Your task to perform on an android device: Go to Wikipedia Image 0: 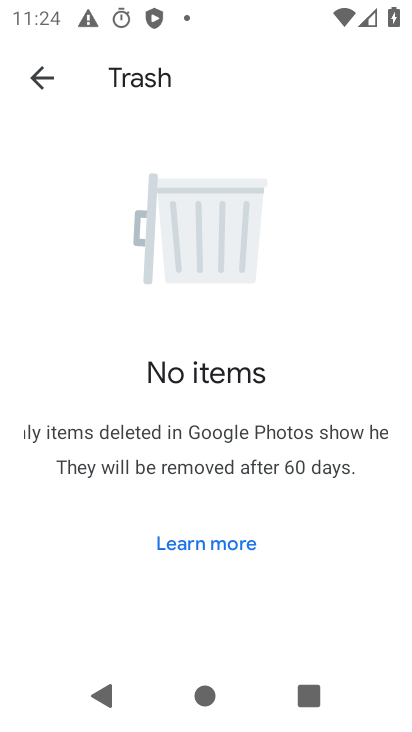
Step 0: press home button
Your task to perform on an android device: Go to Wikipedia Image 1: 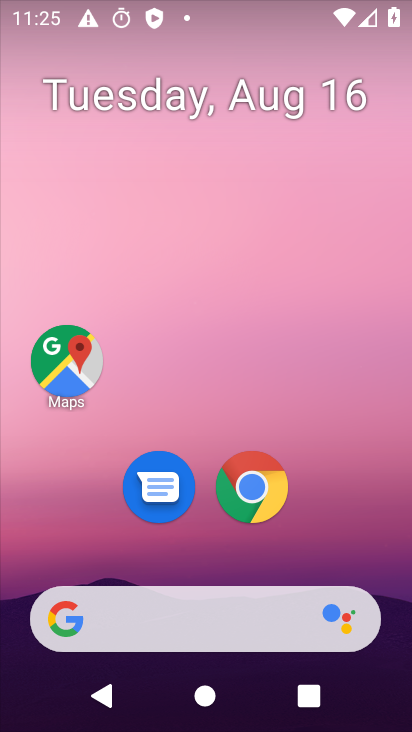
Step 1: click (254, 500)
Your task to perform on an android device: Go to Wikipedia Image 2: 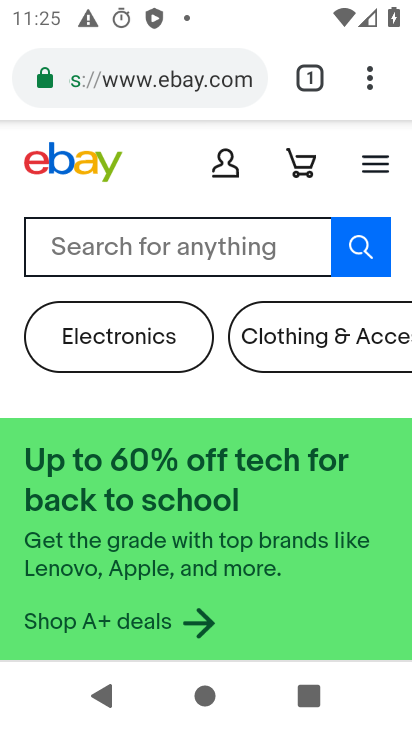
Step 2: click (316, 87)
Your task to perform on an android device: Go to Wikipedia Image 3: 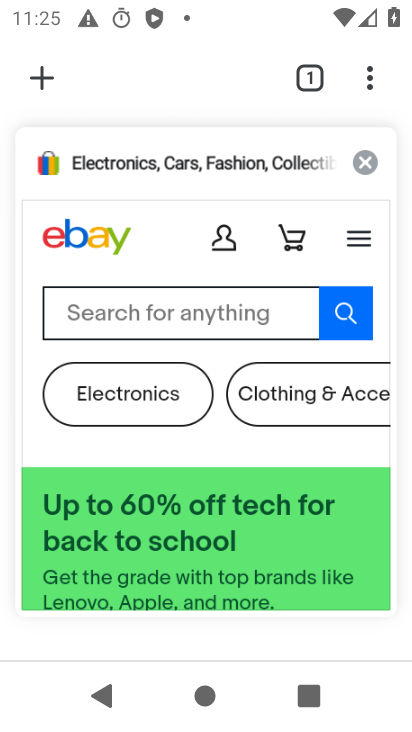
Step 3: click (364, 168)
Your task to perform on an android device: Go to Wikipedia Image 4: 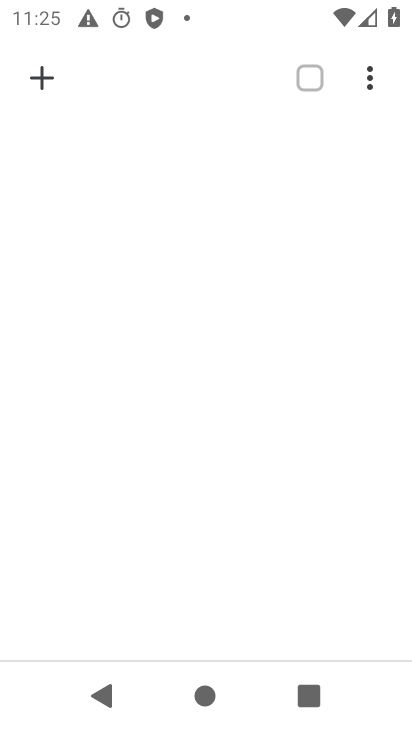
Step 4: click (39, 76)
Your task to perform on an android device: Go to Wikipedia Image 5: 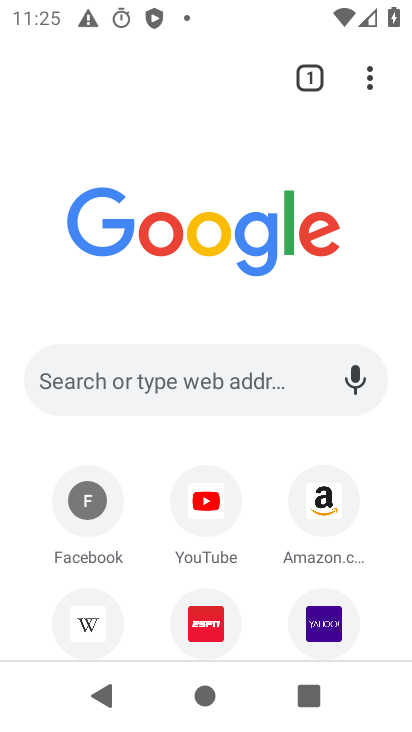
Step 5: click (65, 636)
Your task to perform on an android device: Go to Wikipedia Image 6: 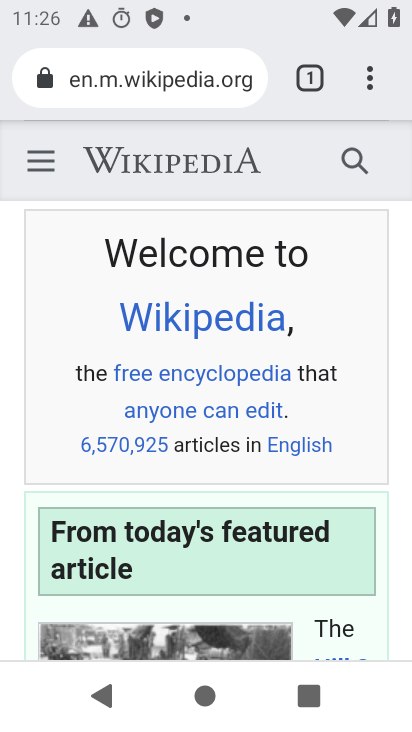
Step 6: task complete